Your task to perform on an android device: move a message to another label in the gmail app Image 0: 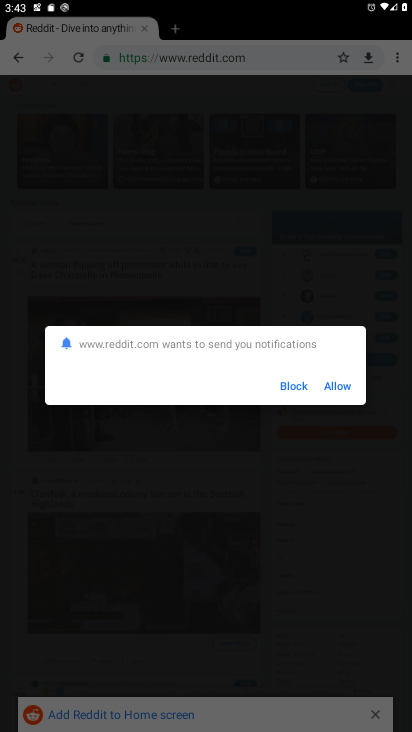
Step 0: press home button
Your task to perform on an android device: move a message to another label in the gmail app Image 1: 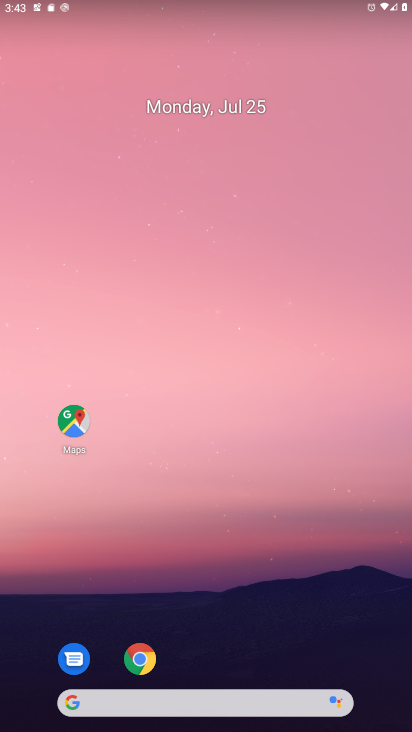
Step 1: drag from (153, 649) to (138, 256)
Your task to perform on an android device: move a message to another label in the gmail app Image 2: 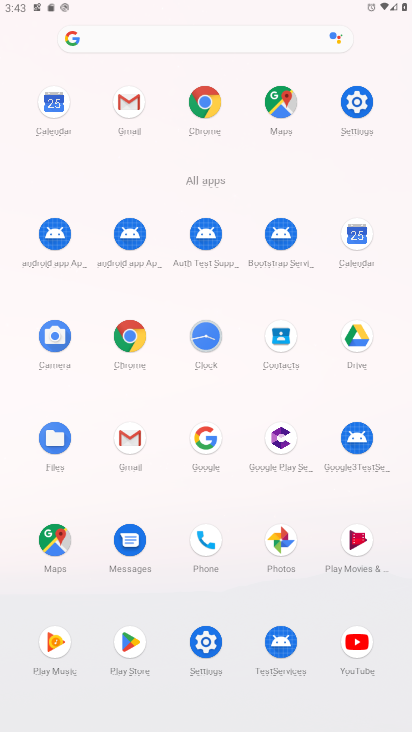
Step 2: click (129, 449)
Your task to perform on an android device: move a message to another label in the gmail app Image 3: 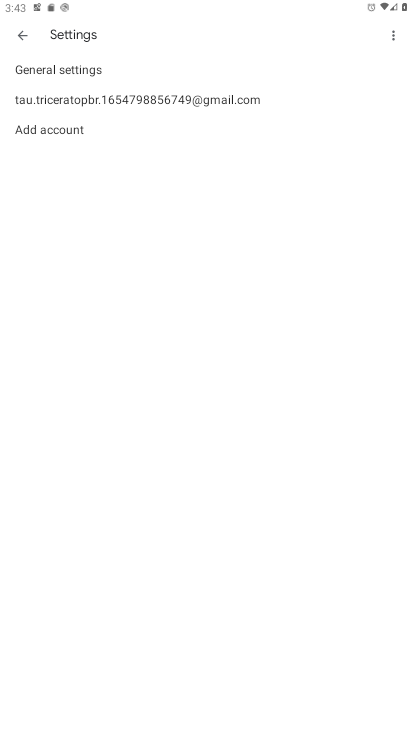
Step 3: click (21, 34)
Your task to perform on an android device: move a message to another label in the gmail app Image 4: 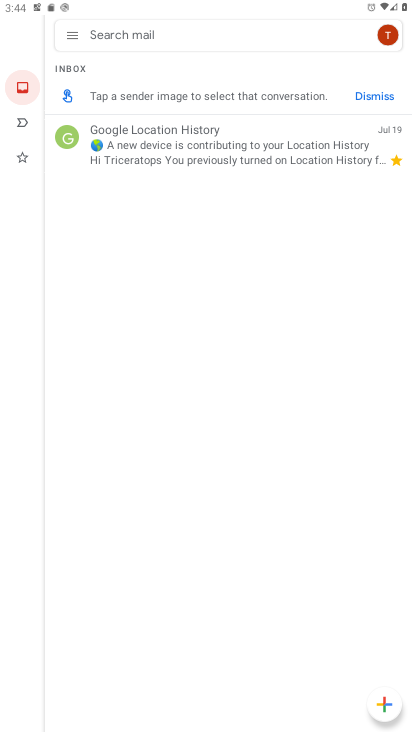
Step 4: click (152, 157)
Your task to perform on an android device: move a message to another label in the gmail app Image 5: 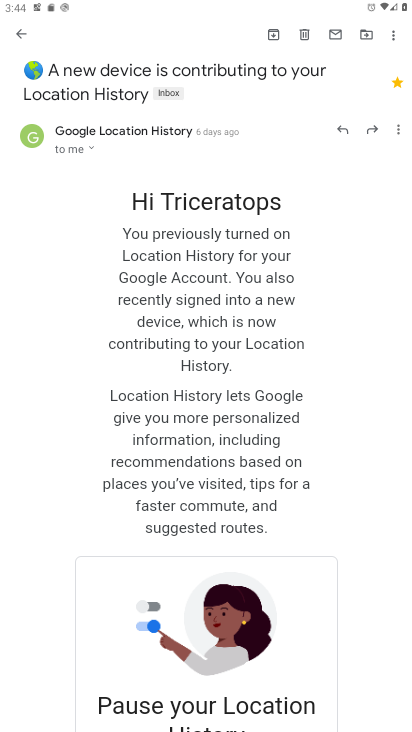
Step 5: click (166, 94)
Your task to perform on an android device: move a message to another label in the gmail app Image 6: 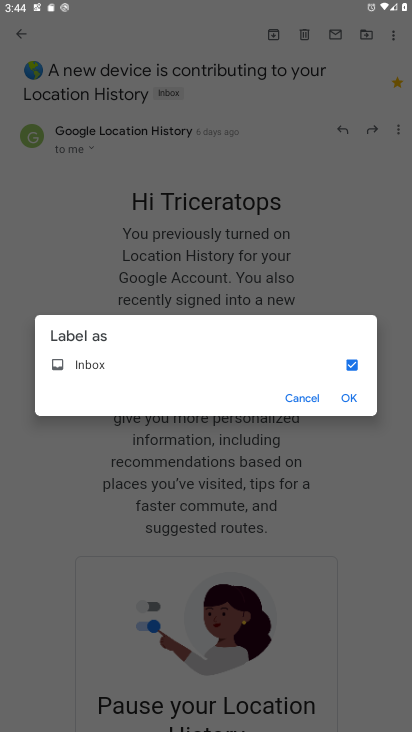
Step 6: click (350, 365)
Your task to perform on an android device: move a message to another label in the gmail app Image 7: 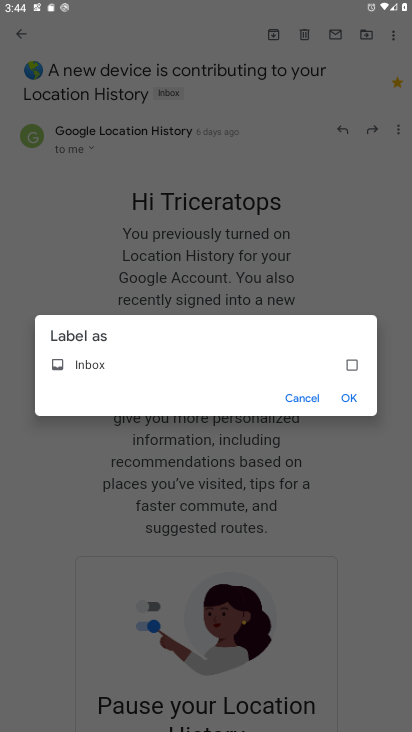
Step 7: click (350, 400)
Your task to perform on an android device: move a message to another label in the gmail app Image 8: 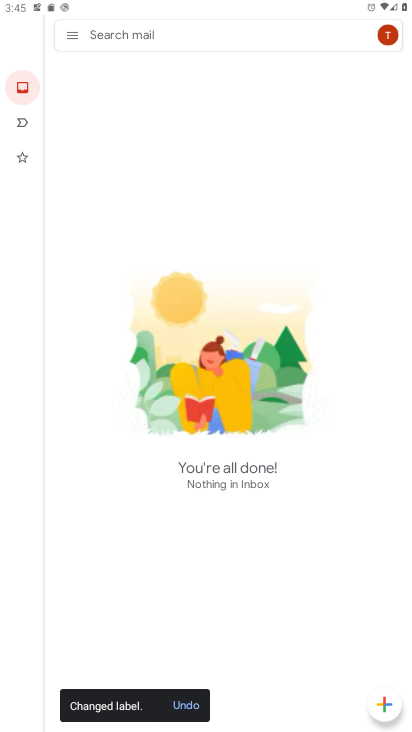
Step 8: task complete